Your task to perform on an android device: Search for 3d printer on AliExpress Image 0: 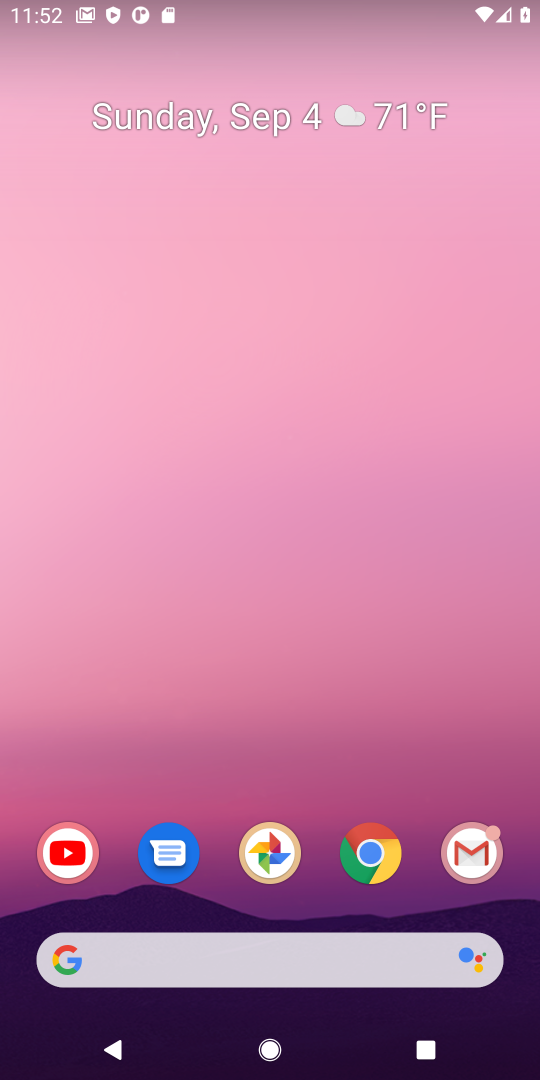
Step 0: click (374, 857)
Your task to perform on an android device: Search for 3d printer on AliExpress Image 1: 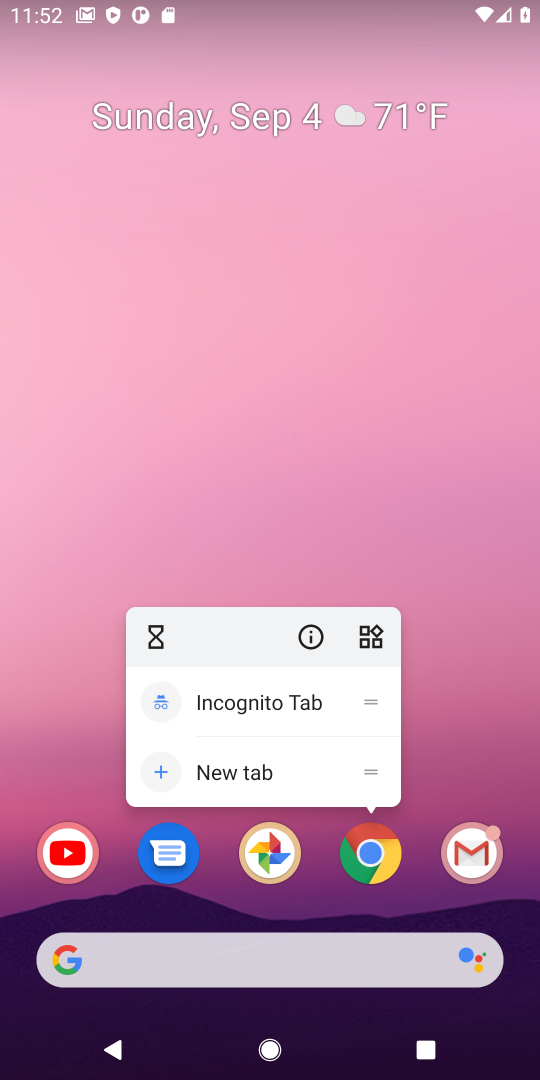
Step 1: click (376, 856)
Your task to perform on an android device: Search for 3d printer on AliExpress Image 2: 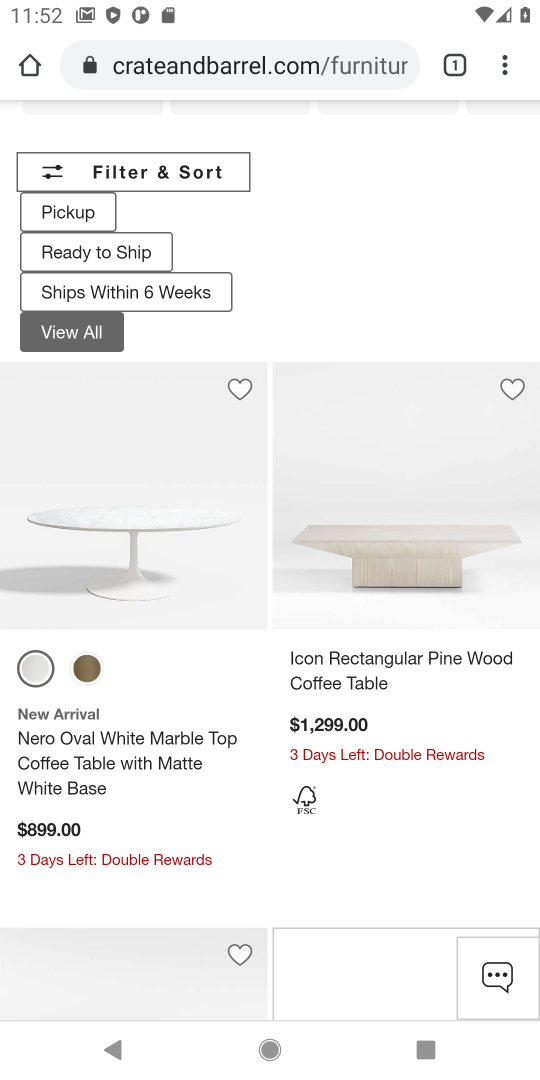
Step 2: click (356, 66)
Your task to perform on an android device: Search for 3d printer on AliExpress Image 3: 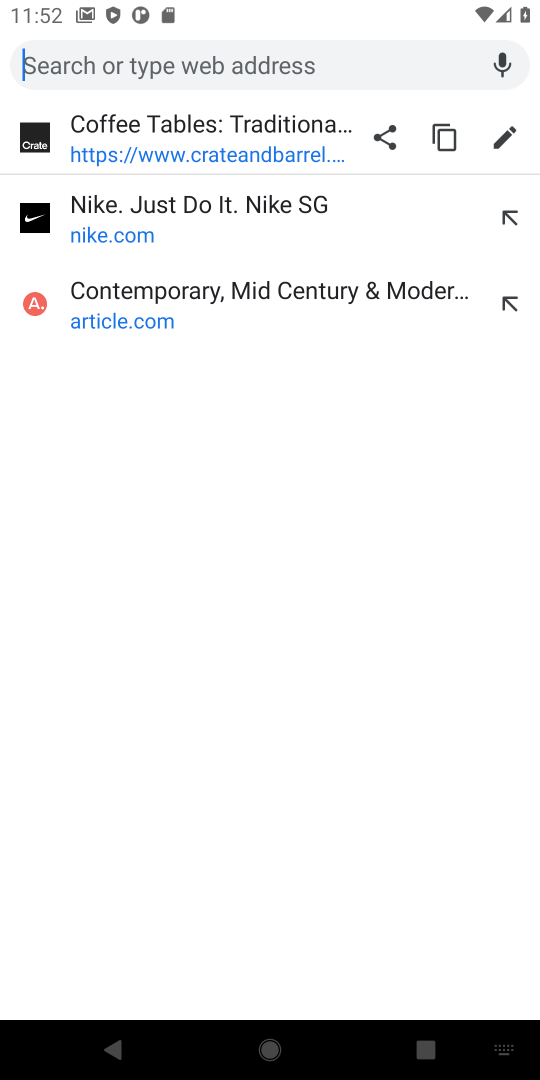
Step 3: type "AliExpress"
Your task to perform on an android device: Search for 3d printer on AliExpress Image 4: 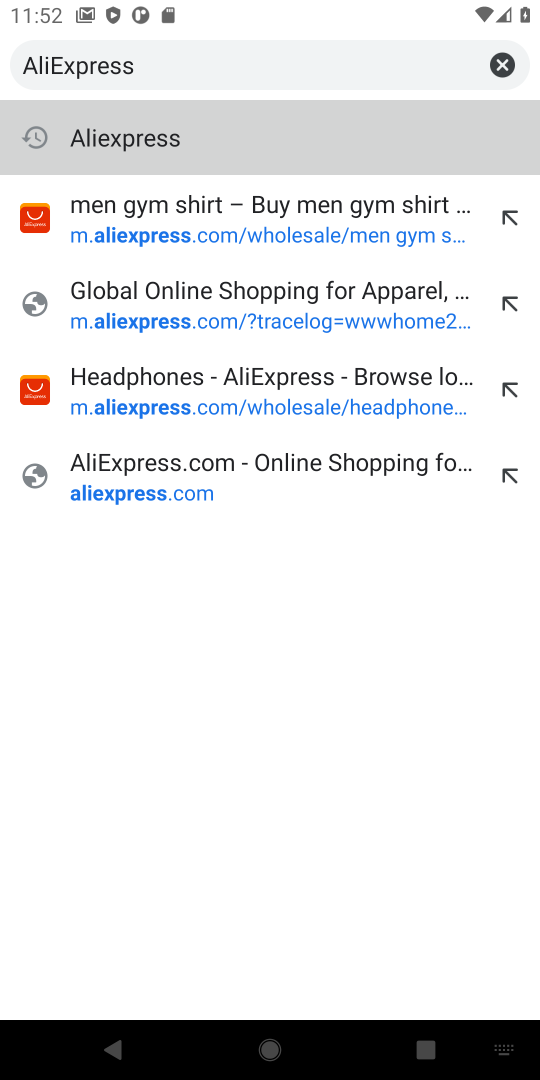
Step 4: press enter
Your task to perform on an android device: Search for 3d printer on AliExpress Image 5: 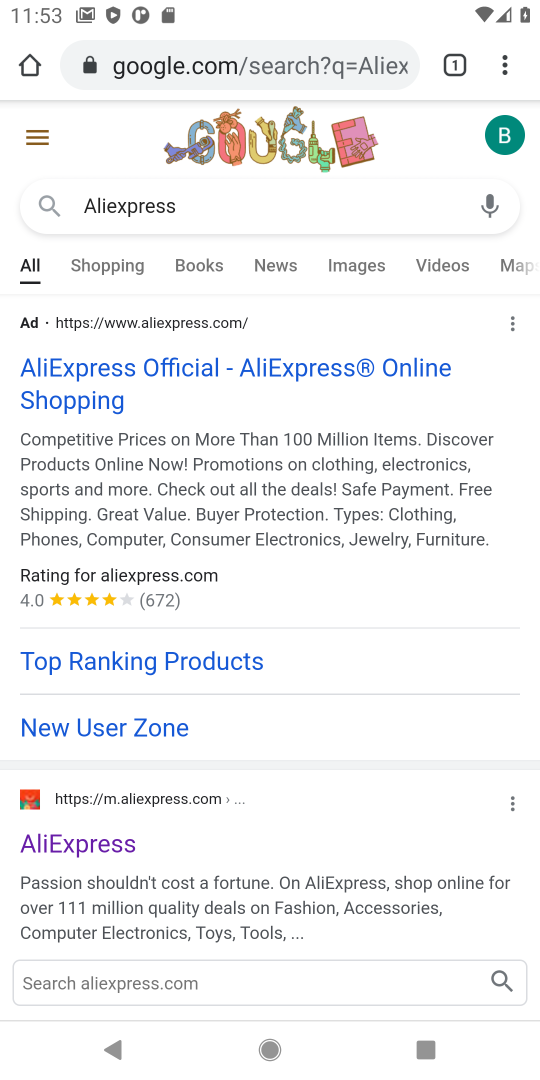
Step 5: click (63, 839)
Your task to perform on an android device: Search for 3d printer on AliExpress Image 6: 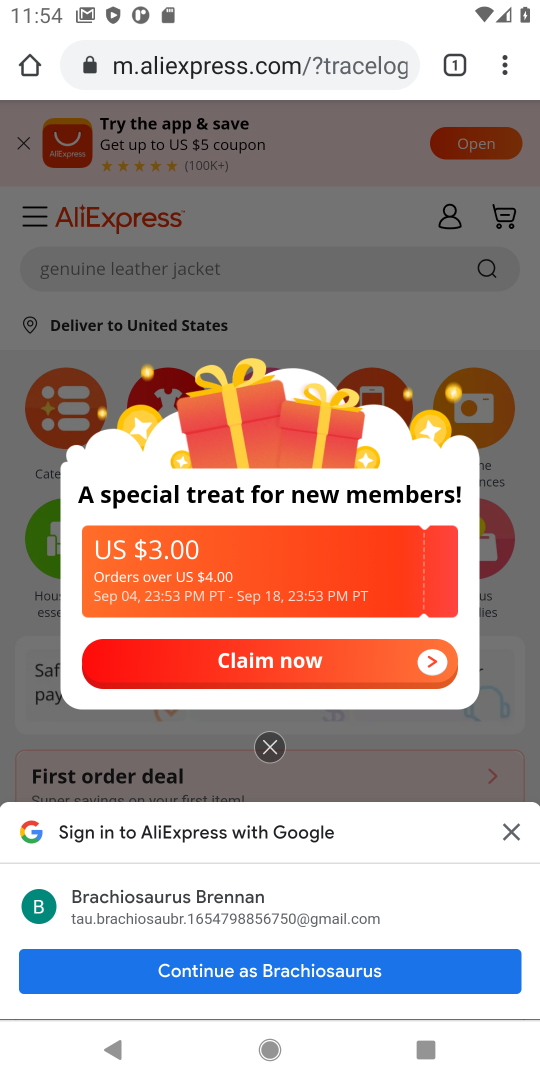
Step 6: click (128, 260)
Your task to perform on an android device: Search for 3d printer on AliExpress Image 7: 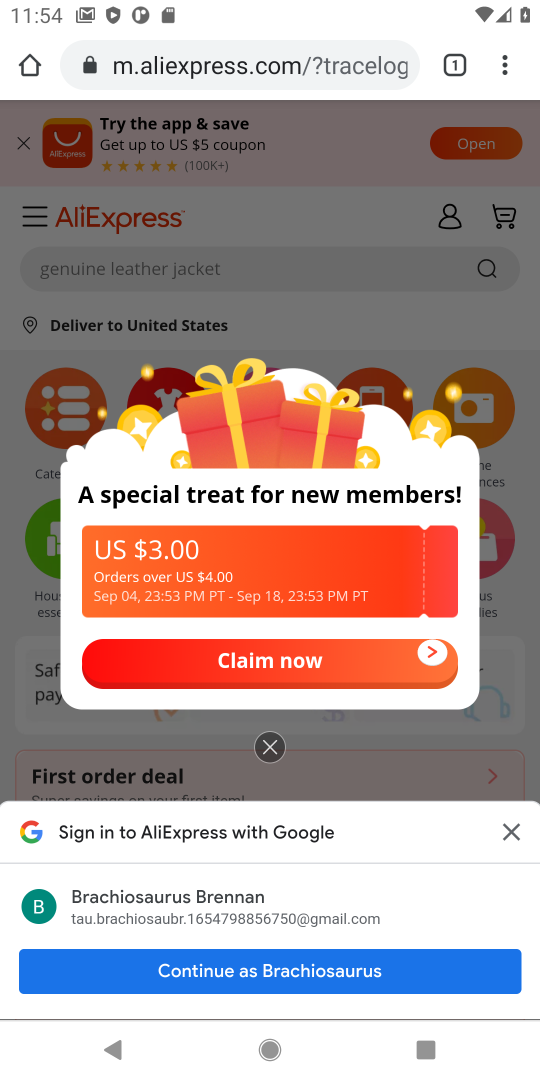
Step 7: click (268, 750)
Your task to perform on an android device: Search for 3d printer on AliExpress Image 8: 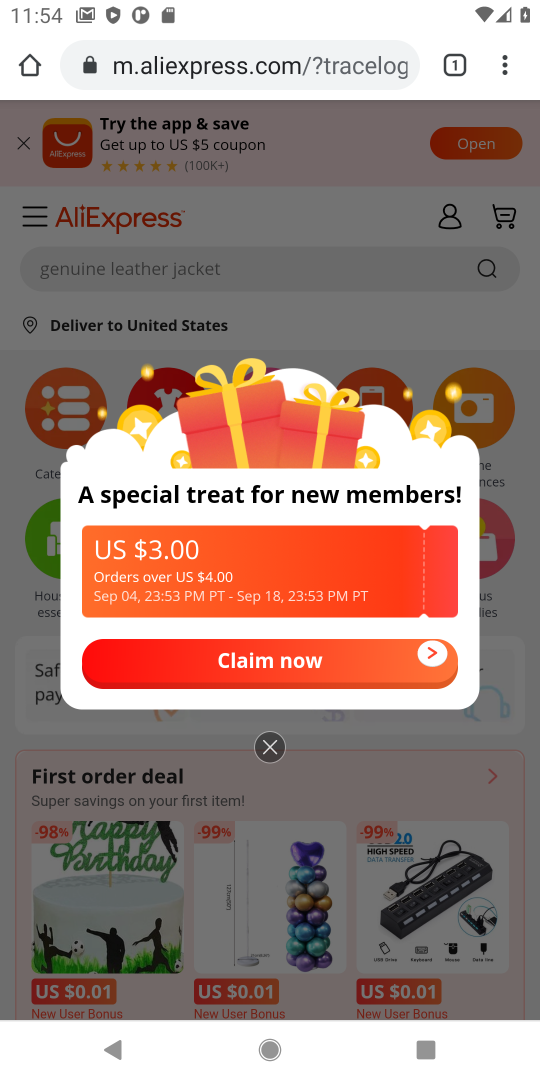
Step 8: click (268, 751)
Your task to perform on an android device: Search for 3d printer on AliExpress Image 9: 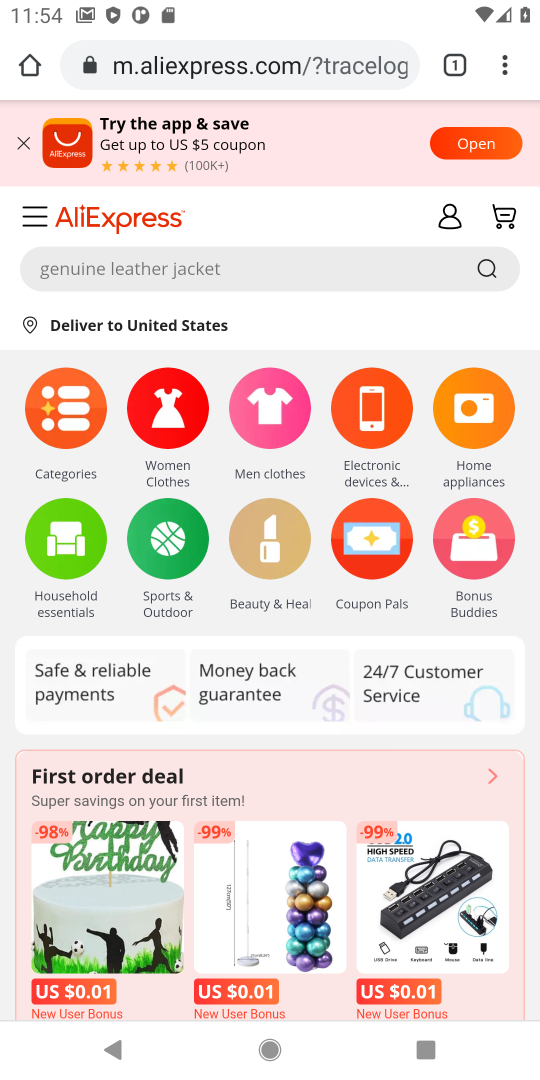
Step 9: click (204, 262)
Your task to perform on an android device: Search for 3d printer on AliExpress Image 10: 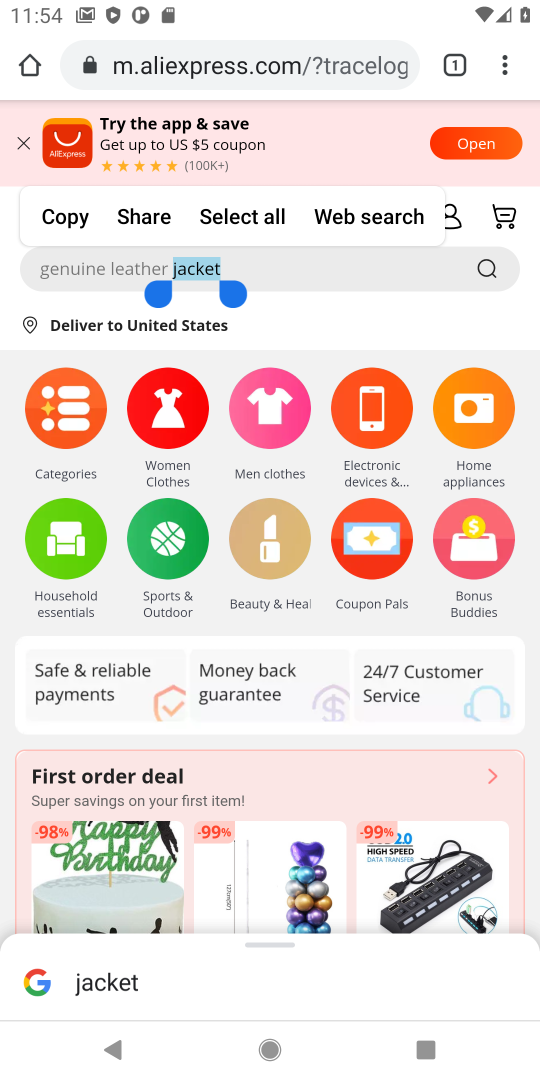
Step 10: click (274, 258)
Your task to perform on an android device: Search for 3d printer on AliExpress Image 11: 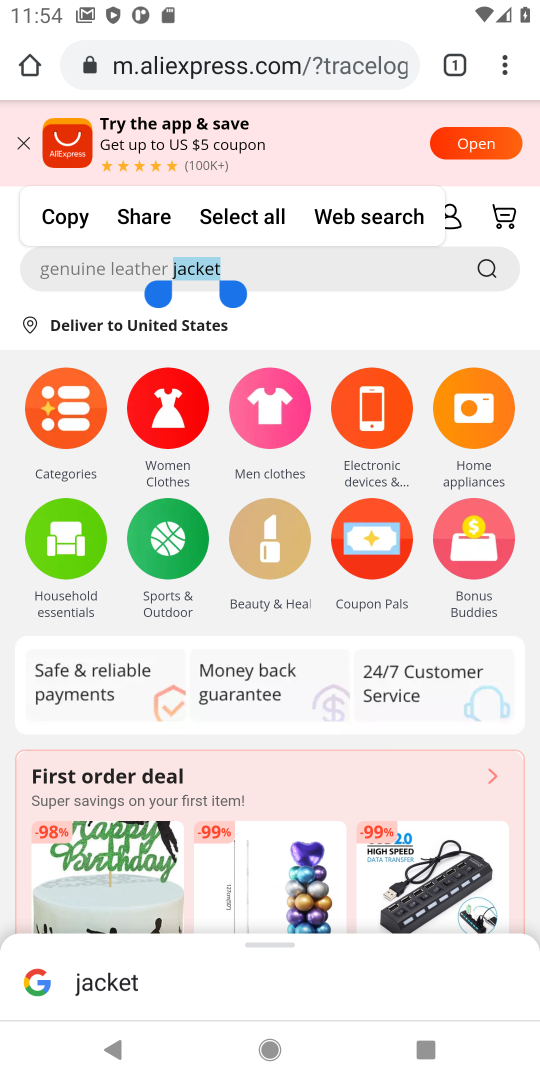
Step 11: click (260, 262)
Your task to perform on an android device: Search for 3d printer on AliExpress Image 12: 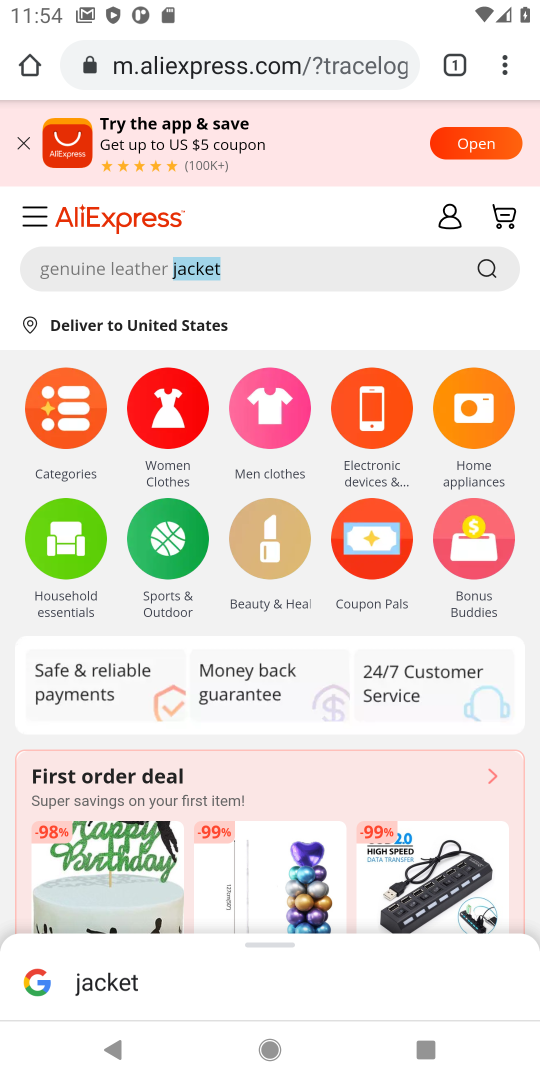
Step 12: click (252, 270)
Your task to perform on an android device: Search for 3d printer on AliExpress Image 13: 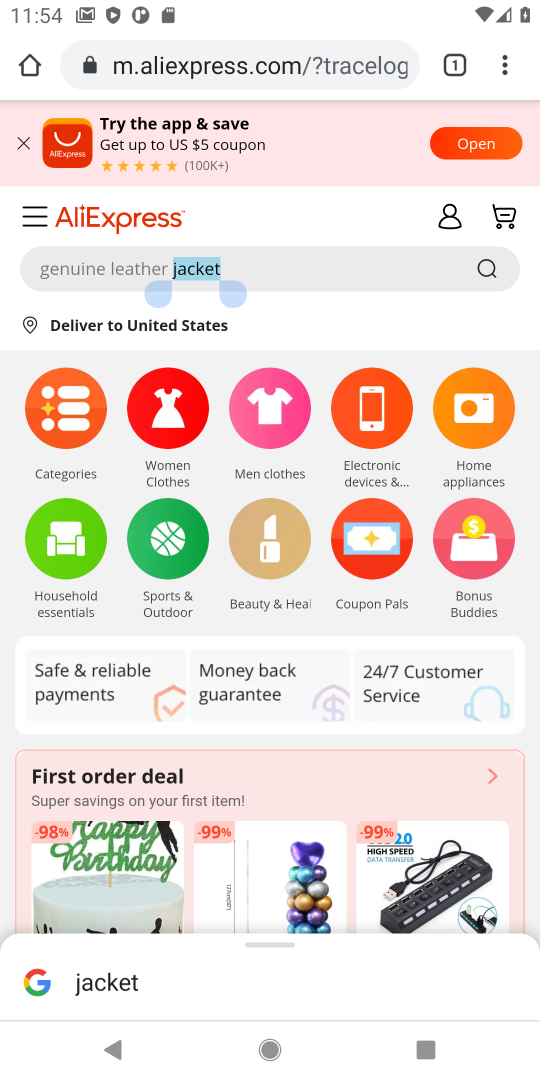
Step 13: click (48, 260)
Your task to perform on an android device: Search for 3d printer on AliExpress Image 14: 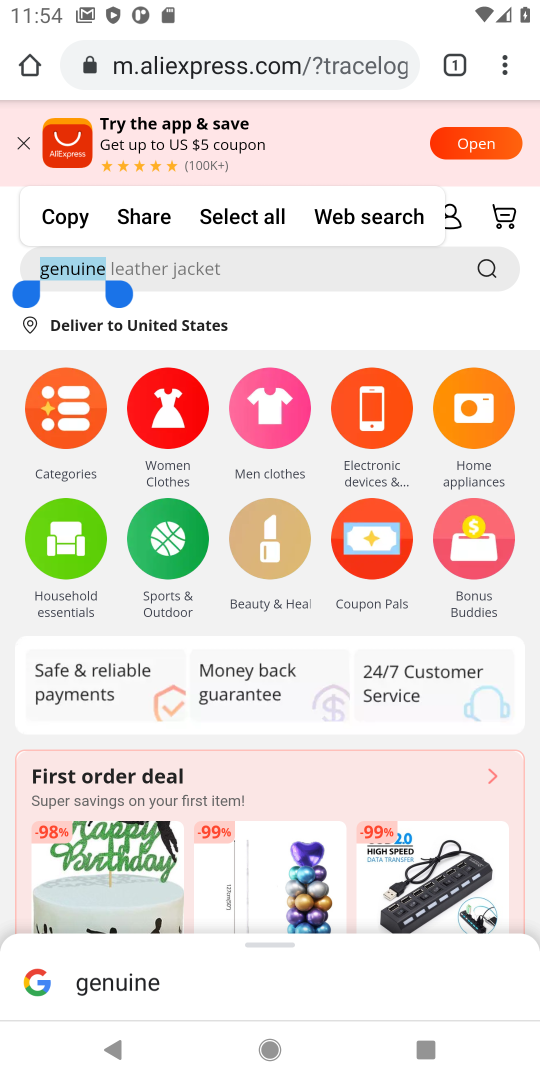
Step 14: click (165, 272)
Your task to perform on an android device: Search for 3d printer on AliExpress Image 15: 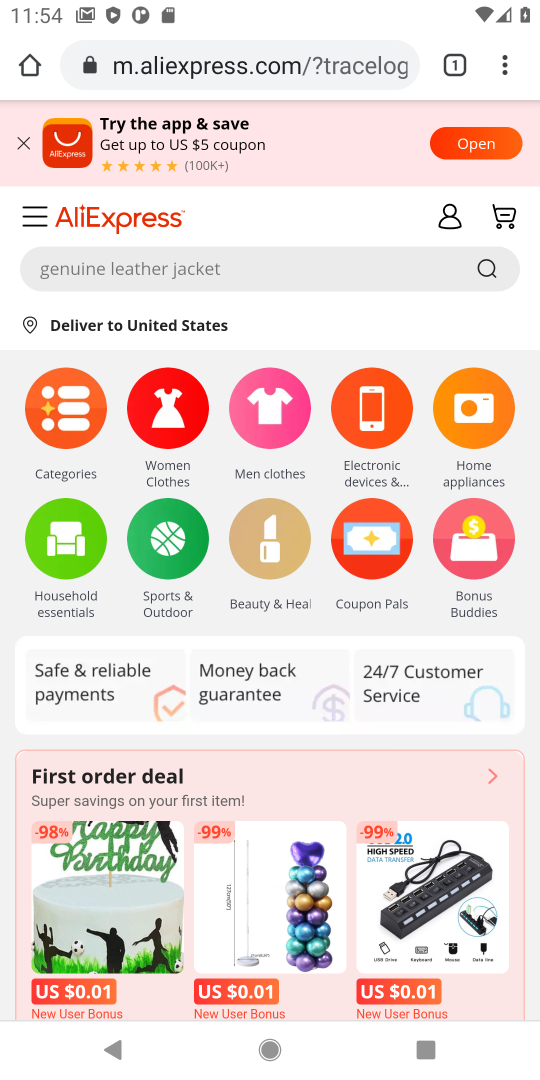
Step 15: click (178, 271)
Your task to perform on an android device: Search for 3d printer on AliExpress Image 16: 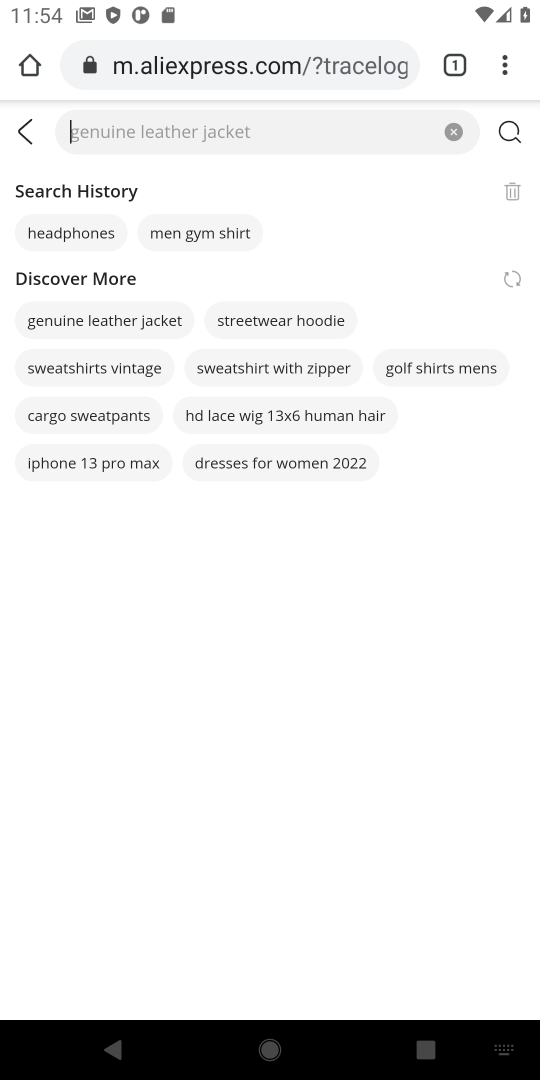
Step 16: click (252, 125)
Your task to perform on an android device: Search for 3d printer on AliExpress Image 17: 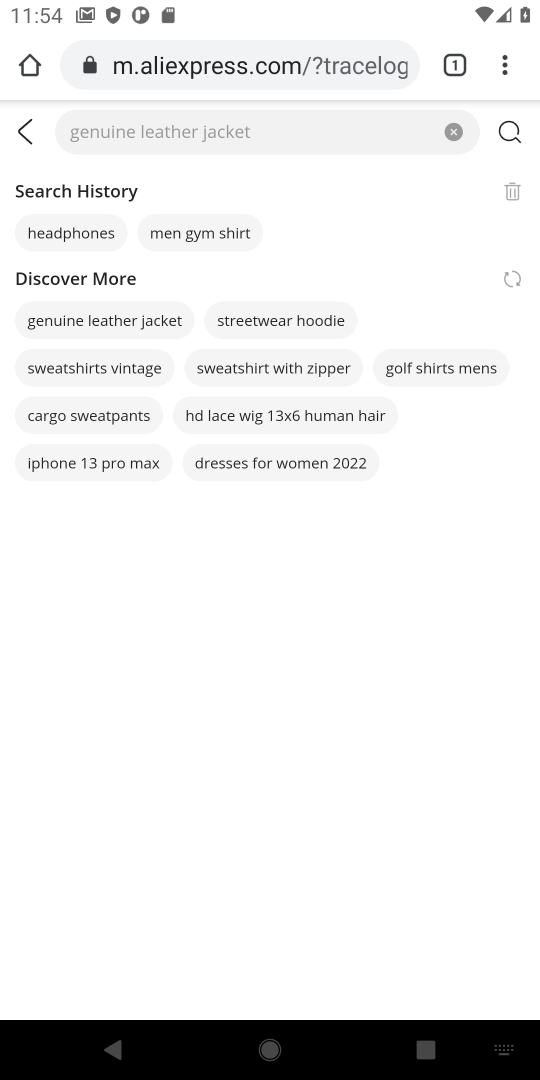
Step 17: click (242, 127)
Your task to perform on an android device: Search for 3d printer on AliExpress Image 18: 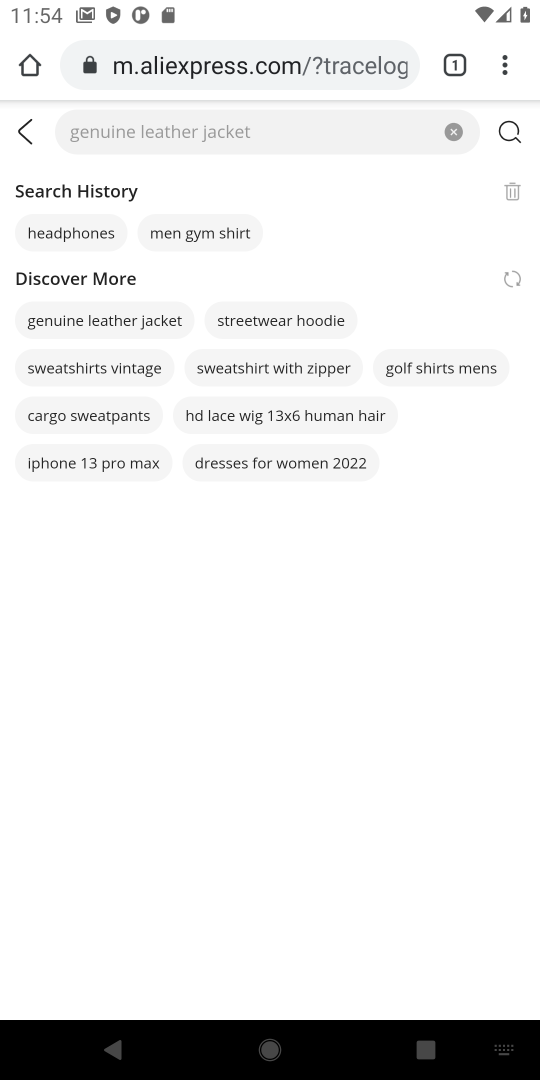
Step 18: click (71, 124)
Your task to perform on an android device: Search for 3d printer on AliExpress Image 19: 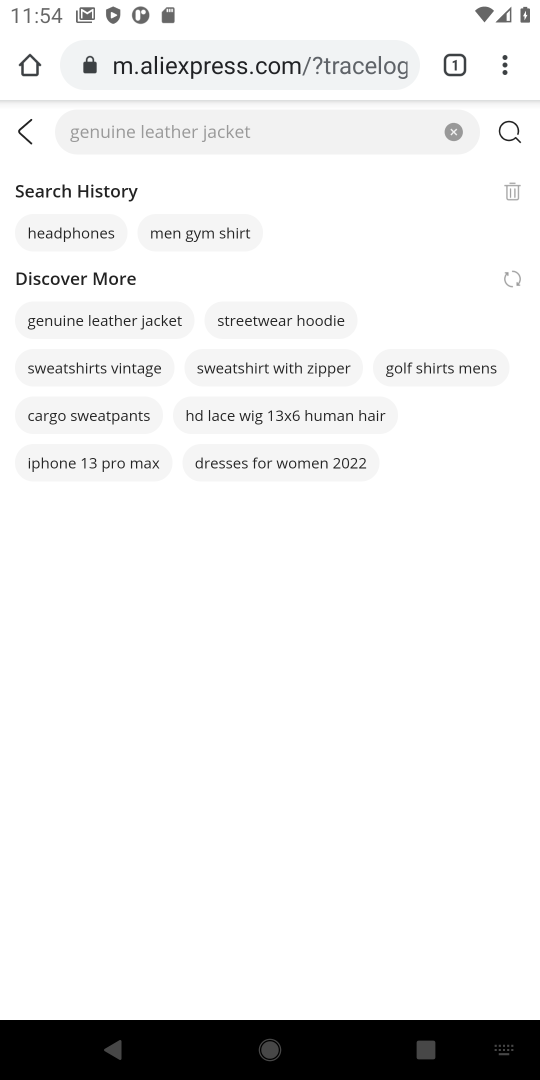
Step 19: type "3d printer"
Your task to perform on an android device: Search for 3d printer on AliExpress Image 20: 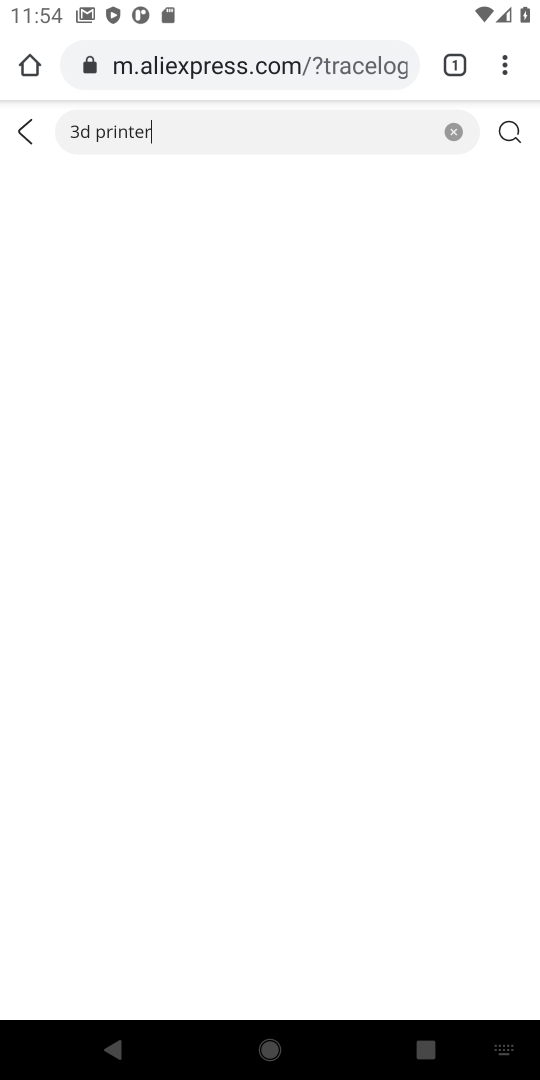
Step 20: press enter
Your task to perform on an android device: Search for 3d printer on AliExpress Image 21: 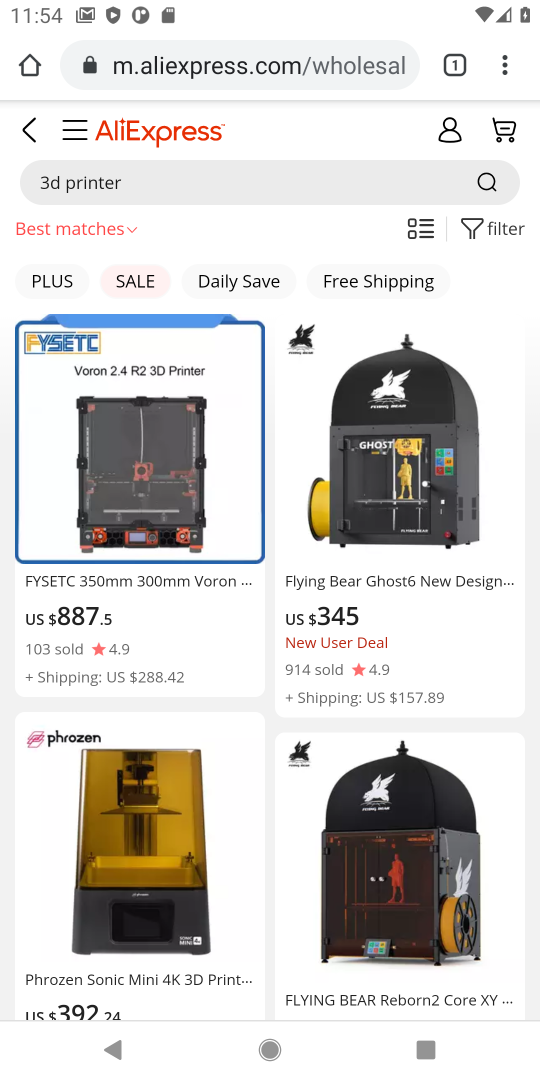
Step 21: drag from (269, 921) to (485, 318)
Your task to perform on an android device: Search for 3d printer on AliExpress Image 22: 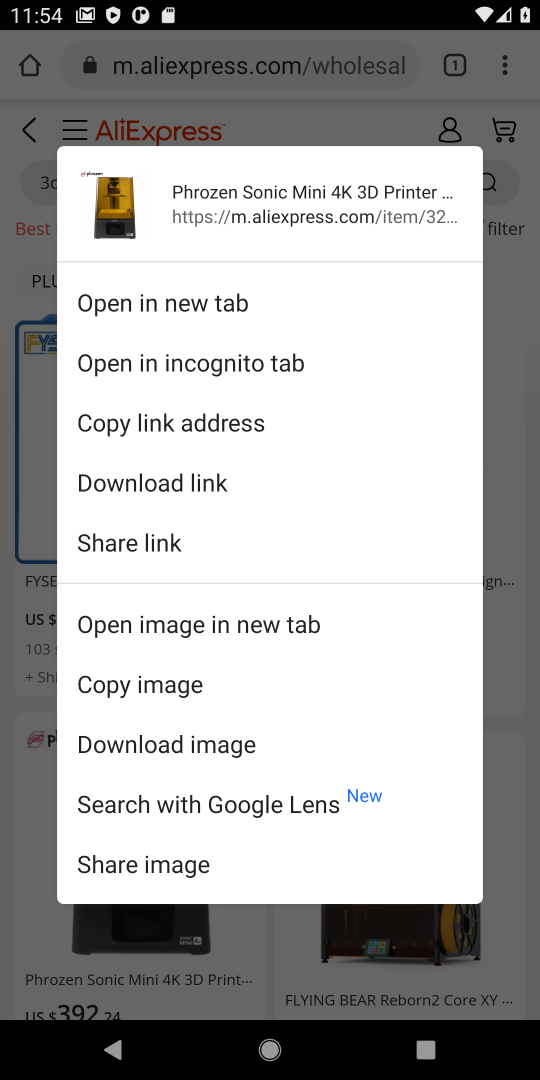
Step 22: click (512, 522)
Your task to perform on an android device: Search for 3d printer on AliExpress Image 23: 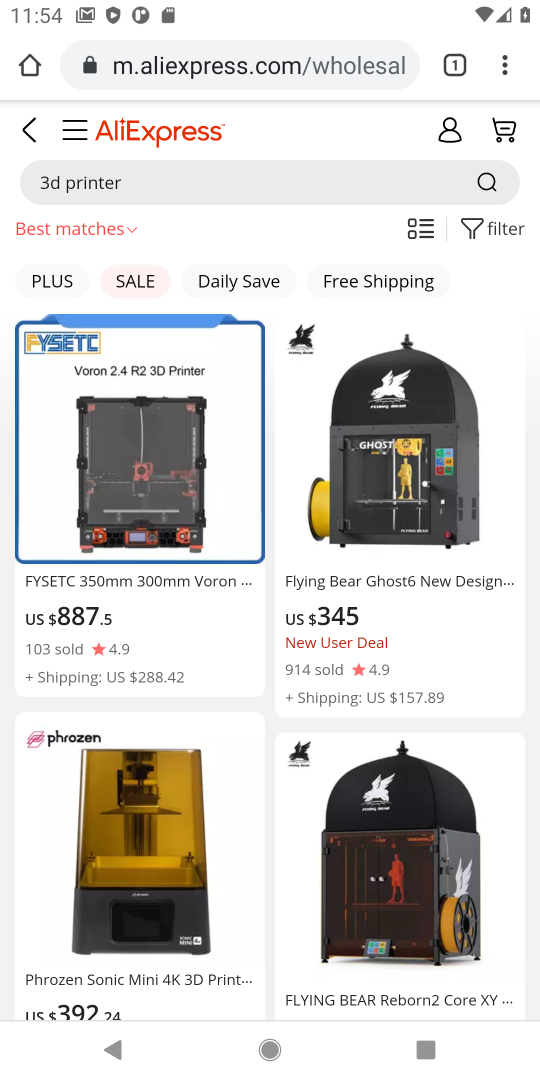
Step 23: task complete